Your task to perform on an android device: Open calendar and show me the second week of next month Image 0: 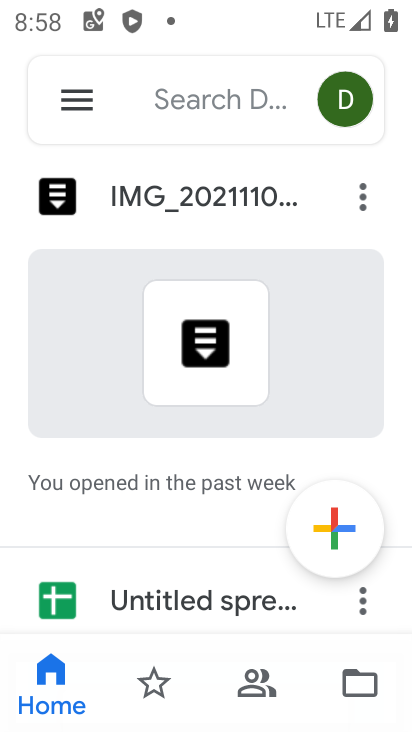
Step 0: press home button
Your task to perform on an android device: Open calendar and show me the second week of next month Image 1: 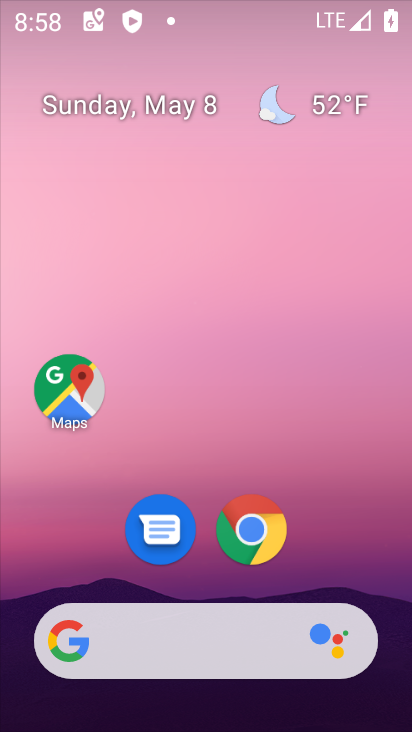
Step 1: drag from (367, 580) to (376, 180)
Your task to perform on an android device: Open calendar and show me the second week of next month Image 2: 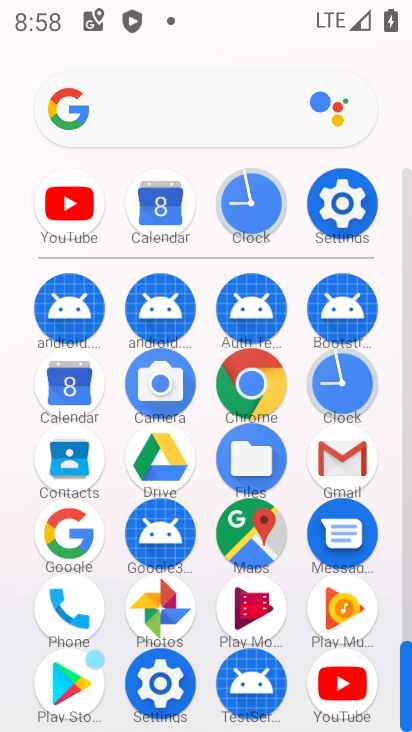
Step 2: click (70, 396)
Your task to perform on an android device: Open calendar and show me the second week of next month Image 3: 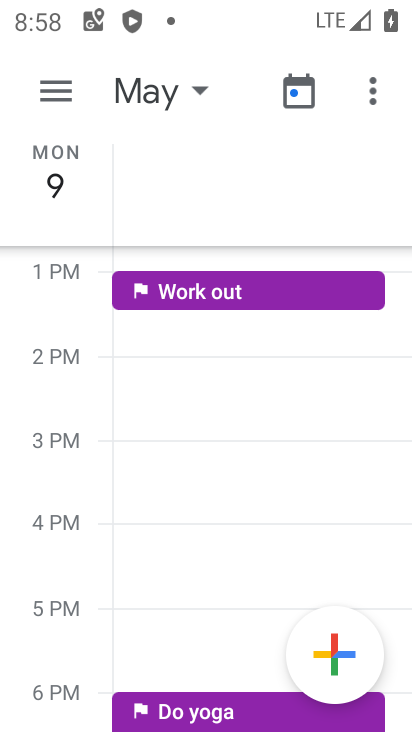
Step 3: click (164, 95)
Your task to perform on an android device: Open calendar and show me the second week of next month Image 4: 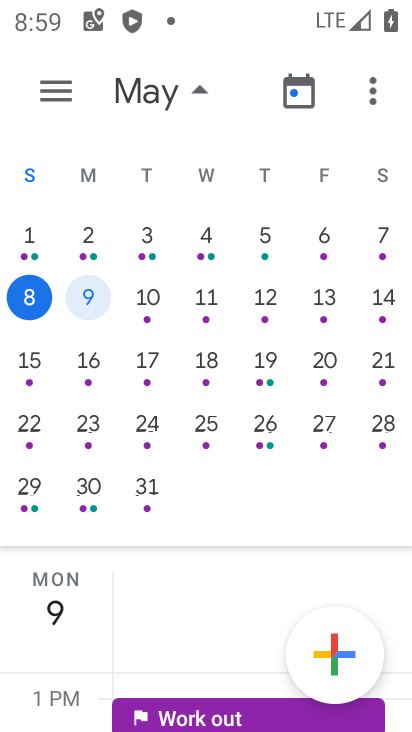
Step 4: task complete